Your task to perform on an android device: uninstall "eBay: The shopping marketplace" Image 0: 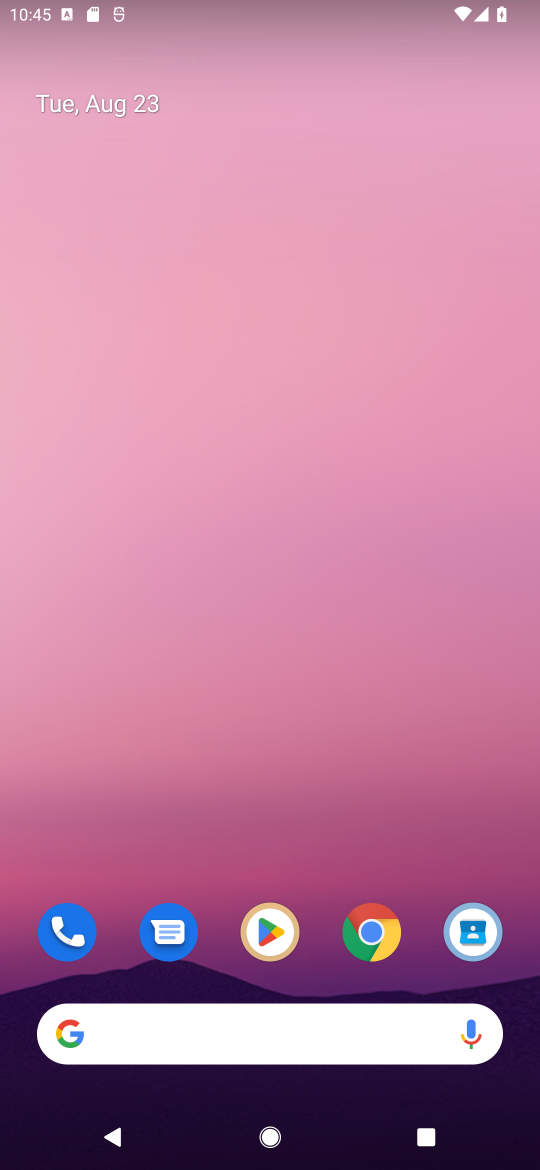
Step 0: click (259, 920)
Your task to perform on an android device: uninstall "eBay: The shopping marketplace" Image 1: 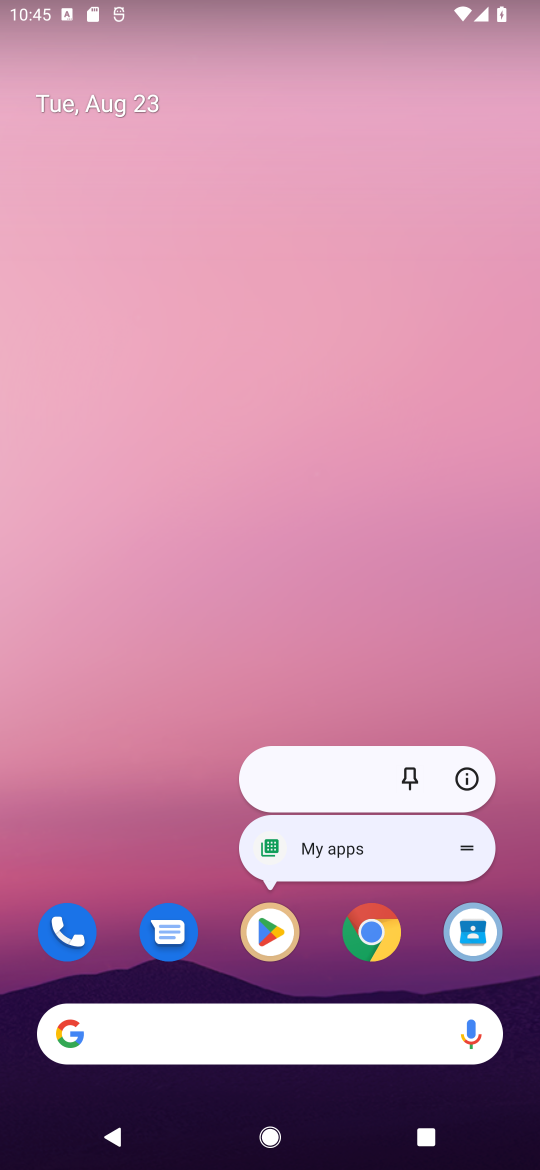
Step 1: click (257, 944)
Your task to perform on an android device: uninstall "eBay: The shopping marketplace" Image 2: 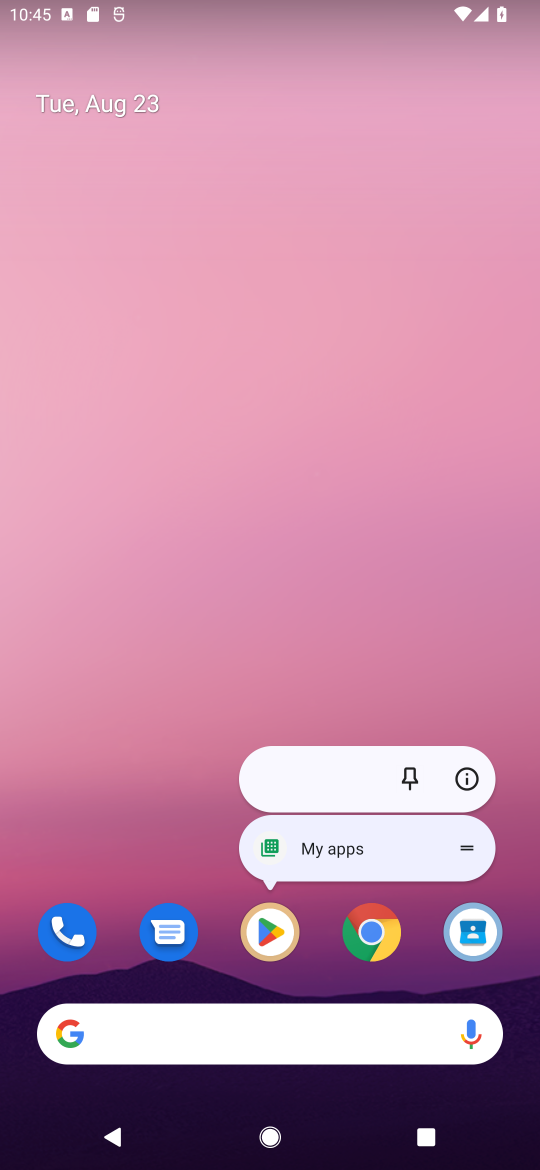
Step 2: click (258, 914)
Your task to perform on an android device: uninstall "eBay: The shopping marketplace" Image 3: 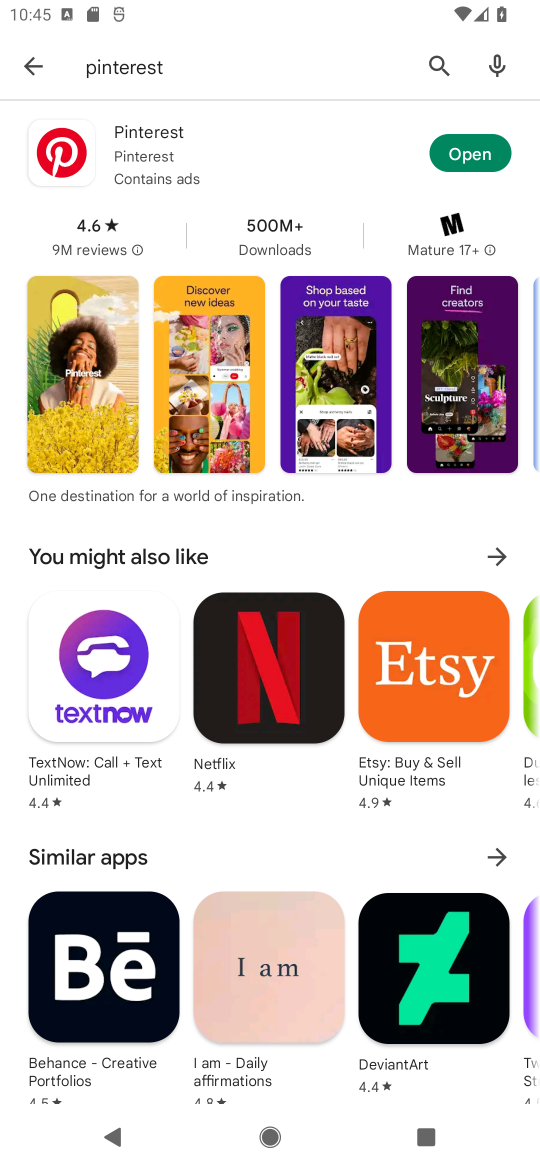
Step 3: click (429, 62)
Your task to perform on an android device: uninstall "eBay: The shopping marketplace" Image 4: 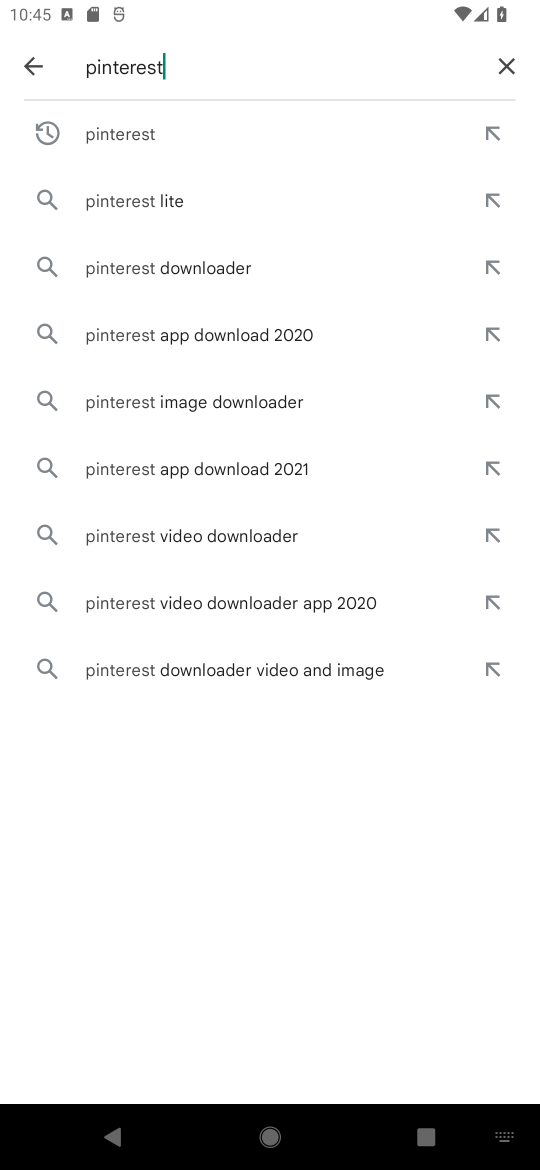
Step 4: click (496, 61)
Your task to perform on an android device: uninstall "eBay: The shopping marketplace" Image 5: 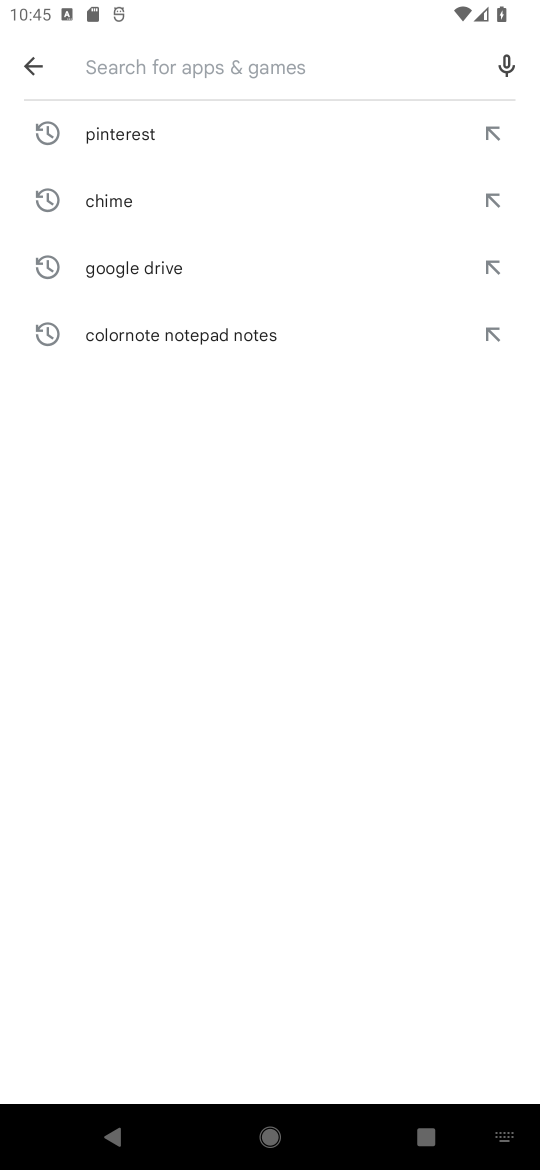
Step 5: click (253, 60)
Your task to perform on an android device: uninstall "eBay: The shopping marketplace" Image 6: 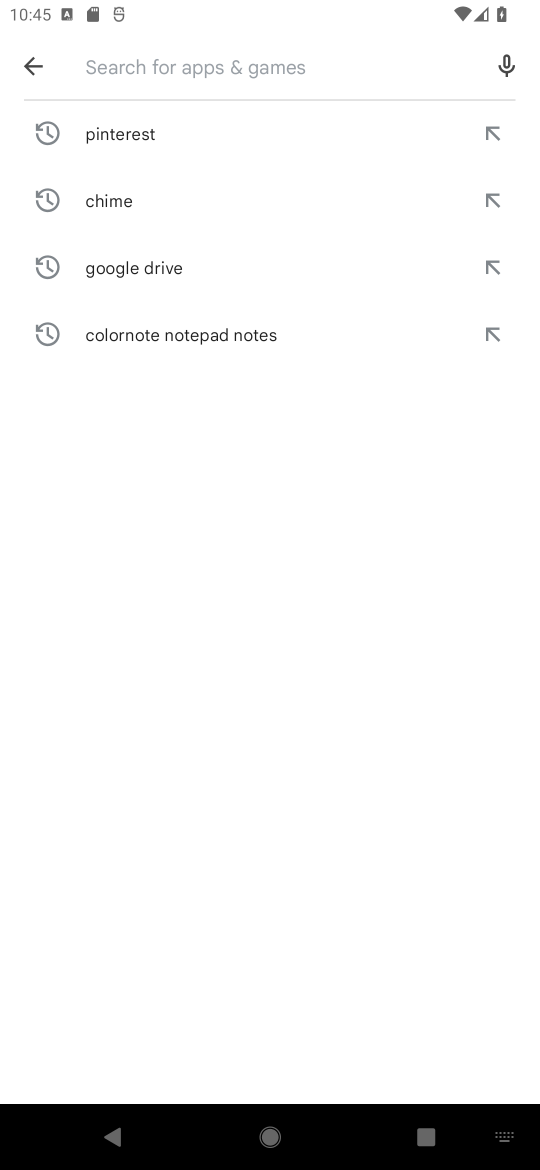
Step 6: type "eBay"
Your task to perform on an android device: uninstall "eBay: The shopping marketplace" Image 7: 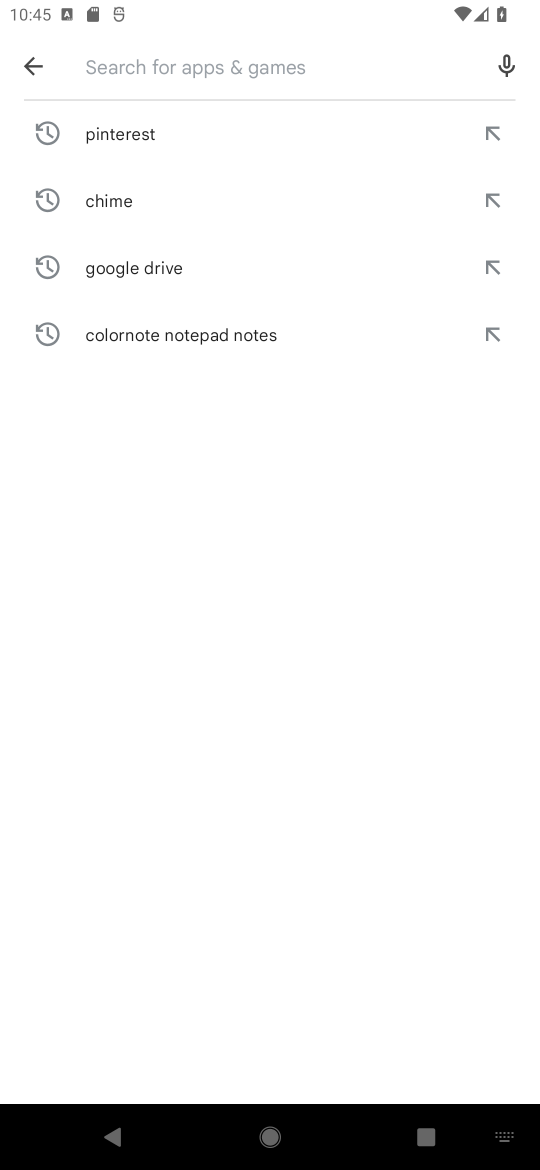
Step 7: click (177, 733)
Your task to perform on an android device: uninstall "eBay: The shopping marketplace" Image 8: 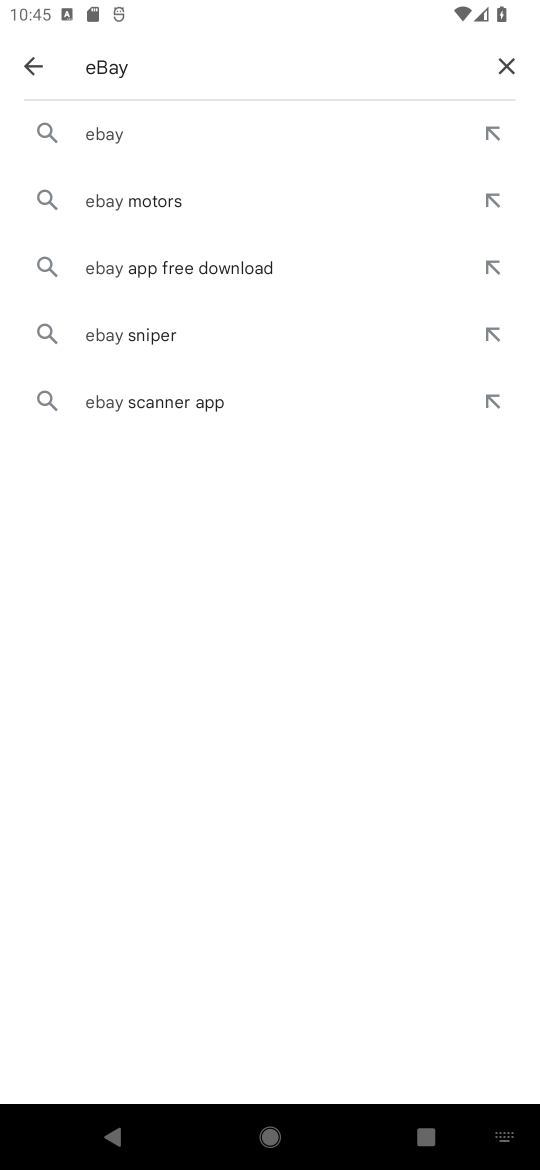
Step 8: click (126, 128)
Your task to perform on an android device: uninstall "eBay: The shopping marketplace" Image 9: 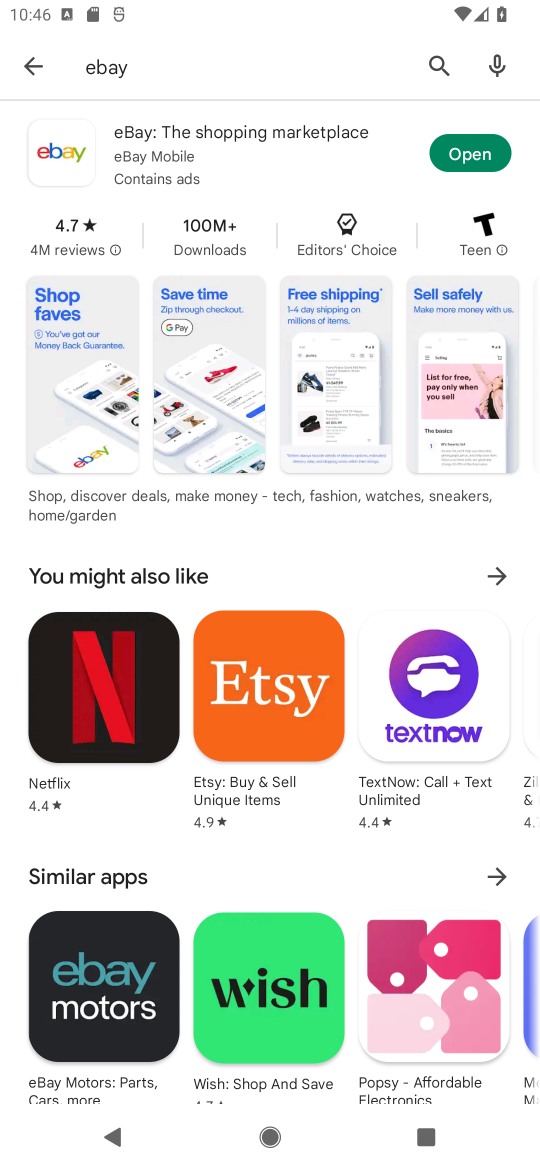
Step 9: click (195, 135)
Your task to perform on an android device: uninstall "eBay: The shopping marketplace" Image 10: 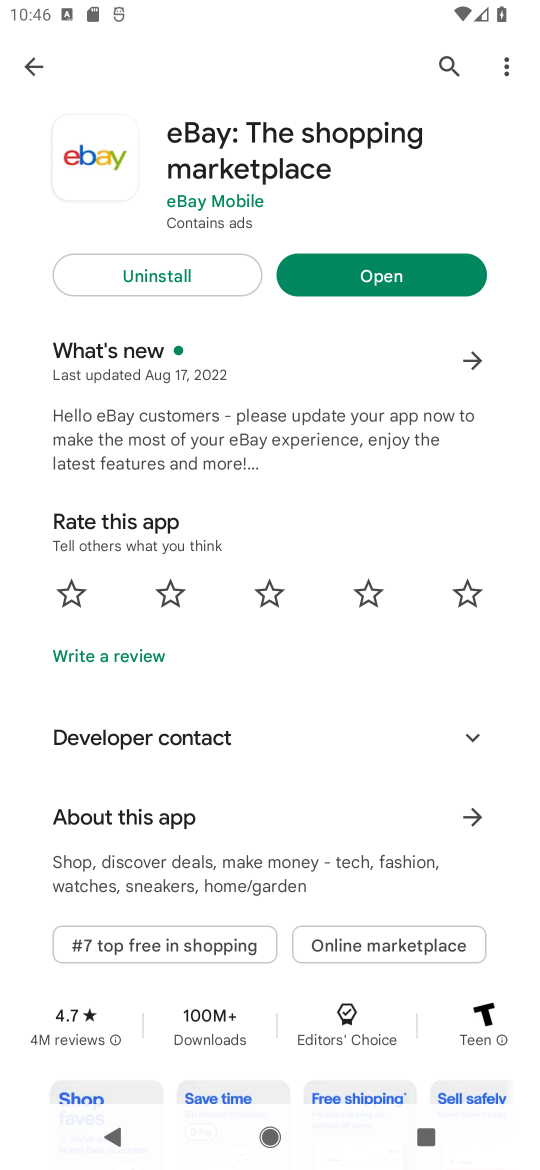
Step 10: click (111, 273)
Your task to perform on an android device: uninstall "eBay: The shopping marketplace" Image 11: 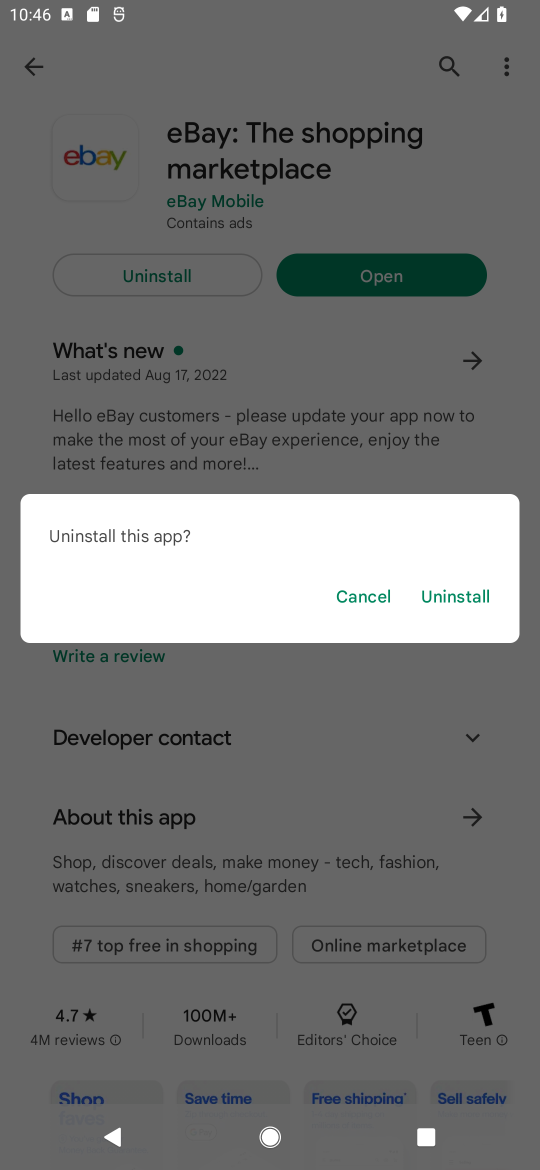
Step 11: click (456, 596)
Your task to perform on an android device: uninstall "eBay: The shopping marketplace" Image 12: 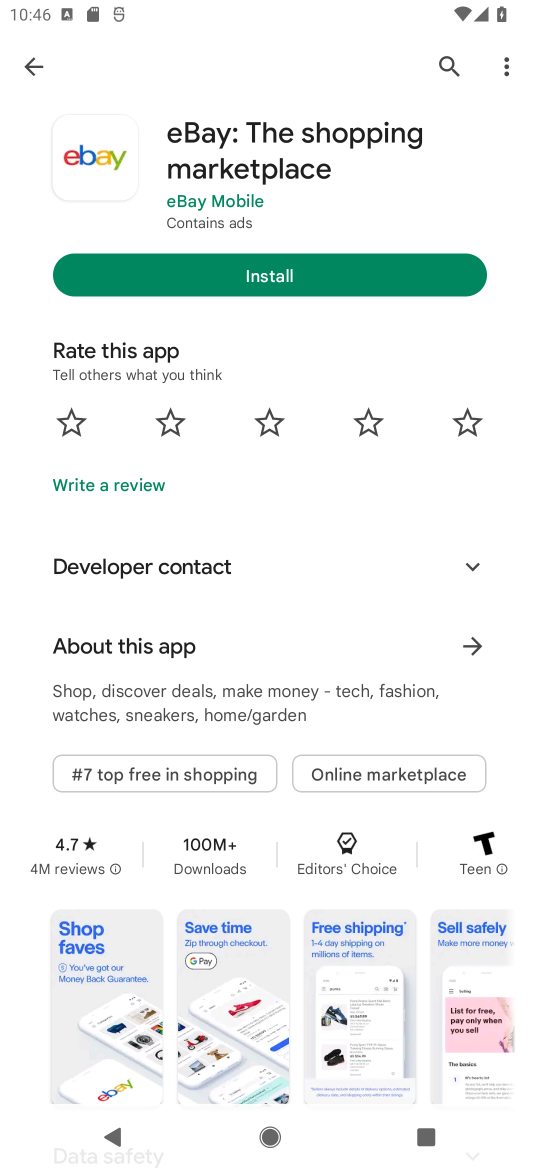
Step 12: task complete